Your task to perform on an android device: delete a single message in the gmail app Image 0: 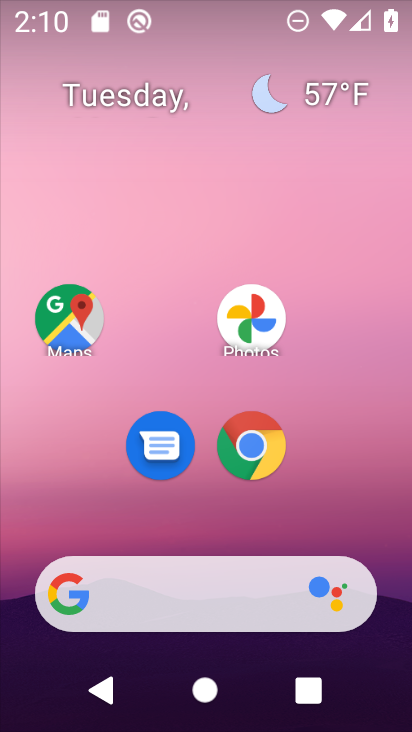
Step 0: click (262, 585)
Your task to perform on an android device: delete a single message in the gmail app Image 1: 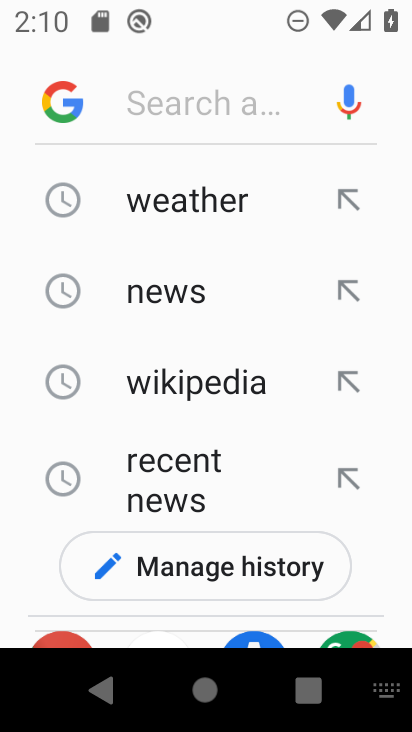
Step 1: press back button
Your task to perform on an android device: delete a single message in the gmail app Image 2: 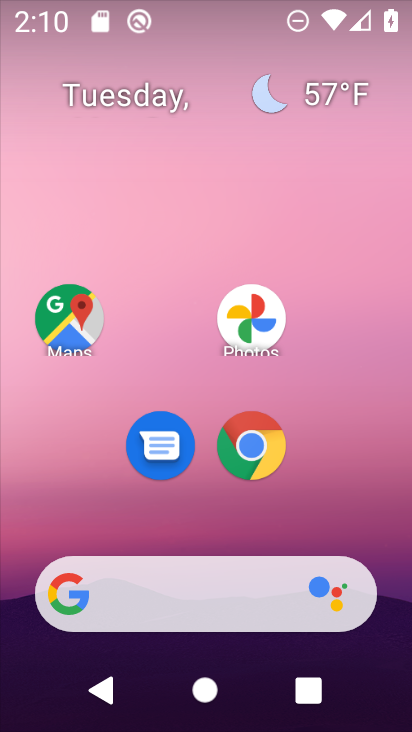
Step 2: drag from (360, 468) to (353, 24)
Your task to perform on an android device: delete a single message in the gmail app Image 3: 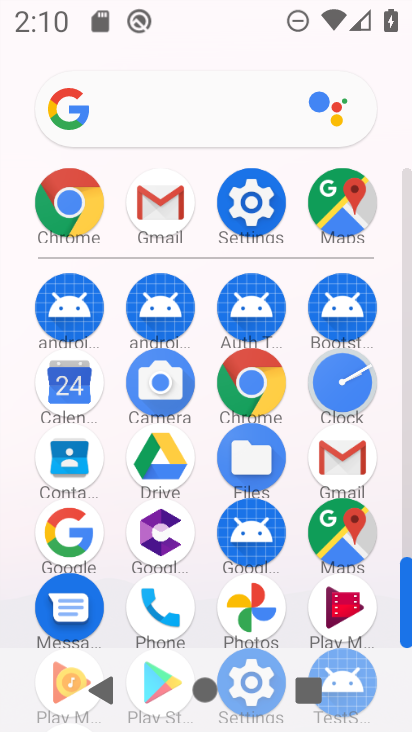
Step 3: click (344, 468)
Your task to perform on an android device: delete a single message in the gmail app Image 4: 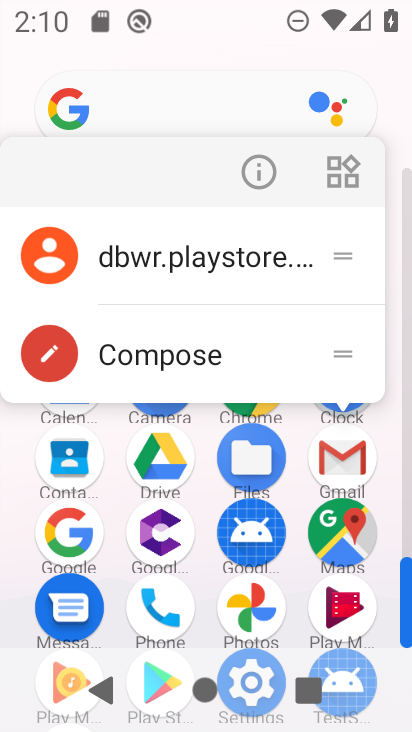
Step 4: click (344, 468)
Your task to perform on an android device: delete a single message in the gmail app Image 5: 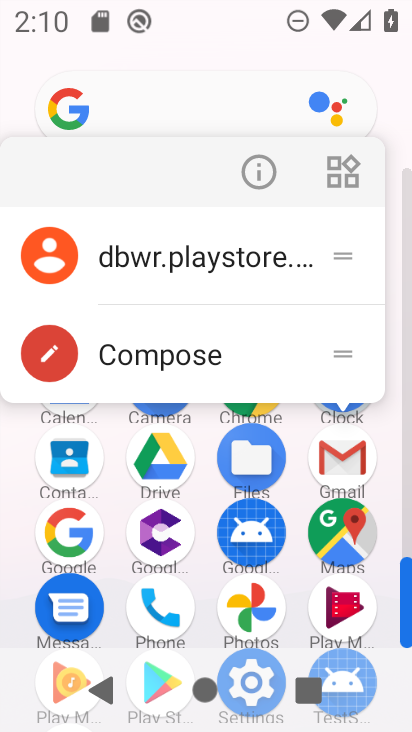
Step 5: click (344, 468)
Your task to perform on an android device: delete a single message in the gmail app Image 6: 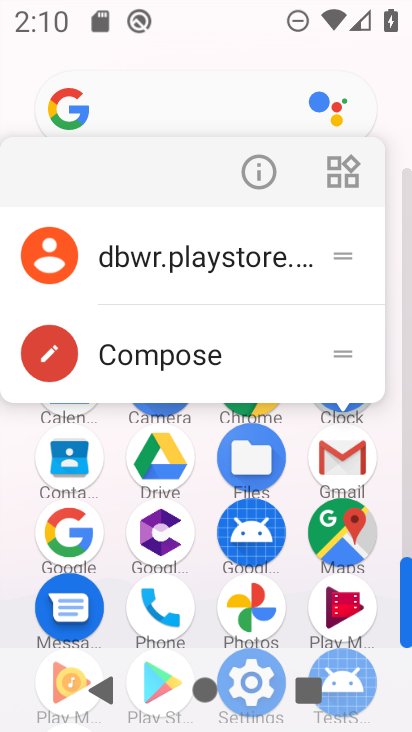
Step 6: click (344, 468)
Your task to perform on an android device: delete a single message in the gmail app Image 7: 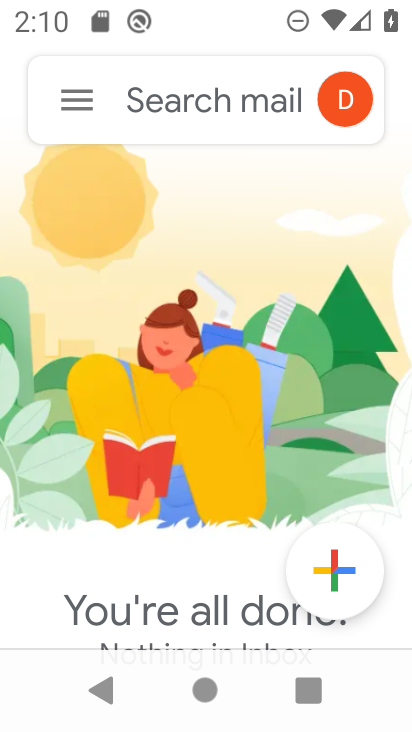
Step 7: task complete